Your task to perform on an android device: delete browsing data in the chrome app Image 0: 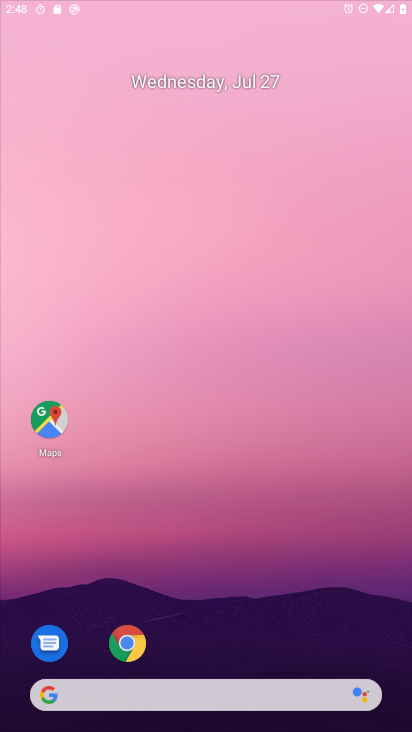
Step 0: press home button
Your task to perform on an android device: delete browsing data in the chrome app Image 1: 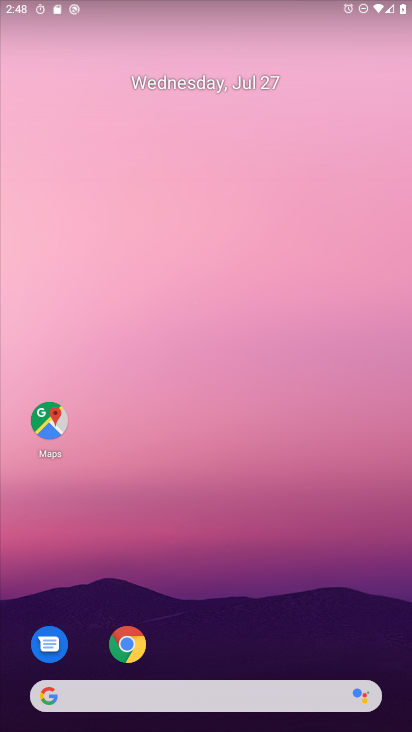
Step 1: click (220, 95)
Your task to perform on an android device: delete browsing data in the chrome app Image 2: 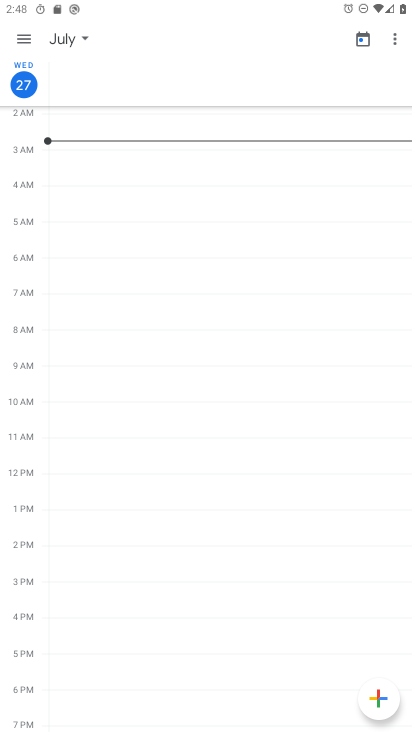
Step 2: press home button
Your task to perform on an android device: delete browsing data in the chrome app Image 3: 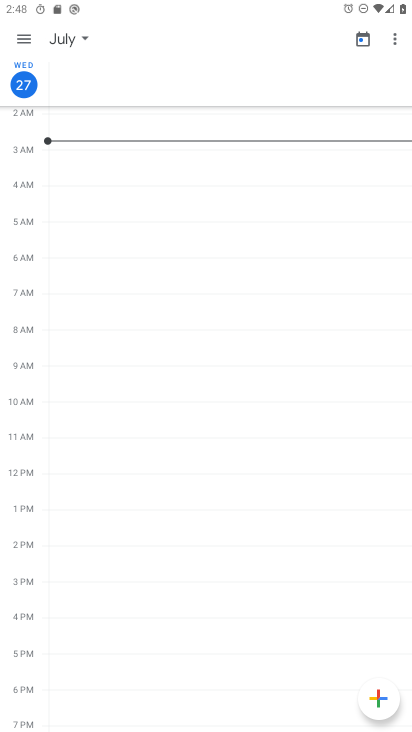
Step 3: press home button
Your task to perform on an android device: delete browsing data in the chrome app Image 4: 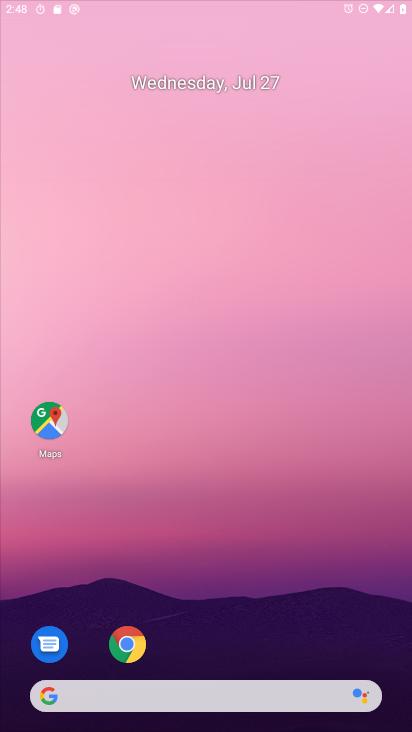
Step 4: drag from (194, 476) to (173, 77)
Your task to perform on an android device: delete browsing data in the chrome app Image 5: 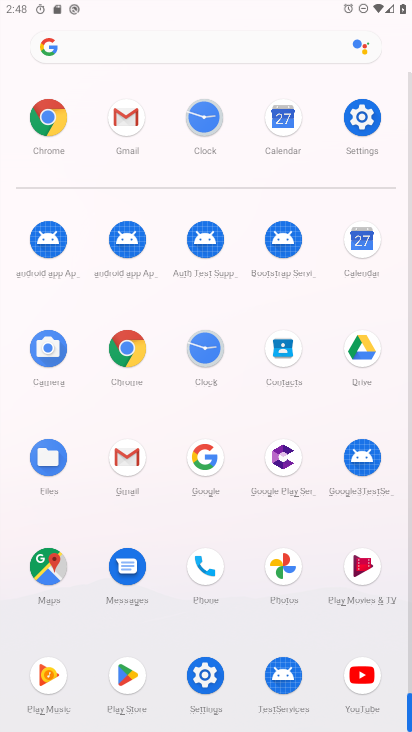
Step 5: click (114, 344)
Your task to perform on an android device: delete browsing data in the chrome app Image 6: 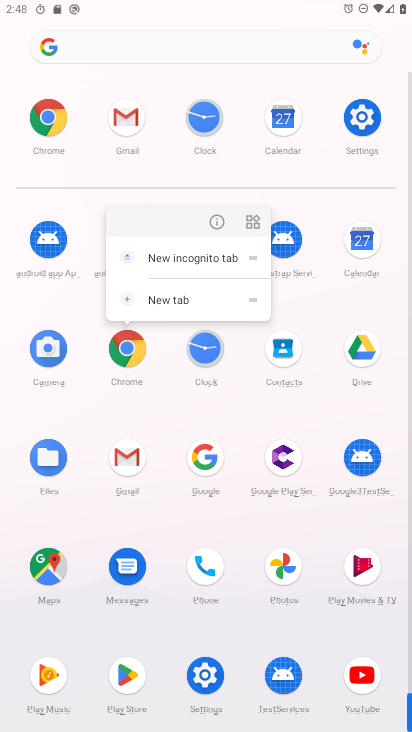
Step 6: click (214, 220)
Your task to perform on an android device: delete browsing data in the chrome app Image 7: 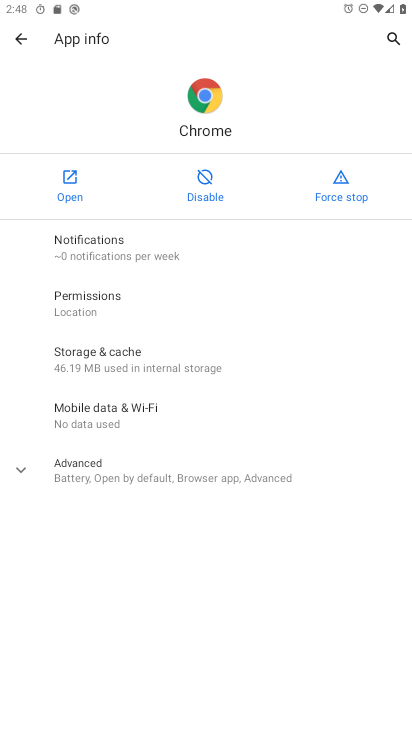
Step 7: click (77, 204)
Your task to perform on an android device: delete browsing data in the chrome app Image 8: 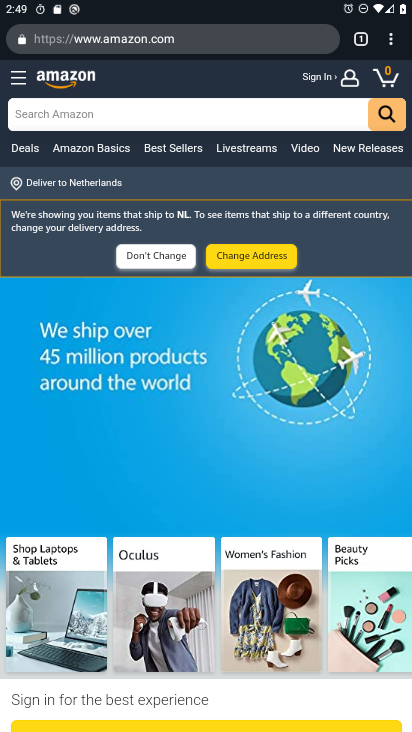
Step 8: drag from (393, 38) to (264, 268)
Your task to perform on an android device: delete browsing data in the chrome app Image 9: 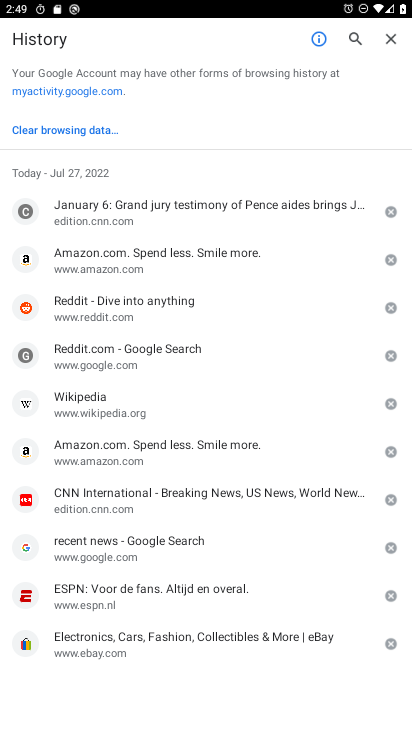
Step 9: click (37, 130)
Your task to perform on an android device: delete browsing data in the chrome app Image 10: 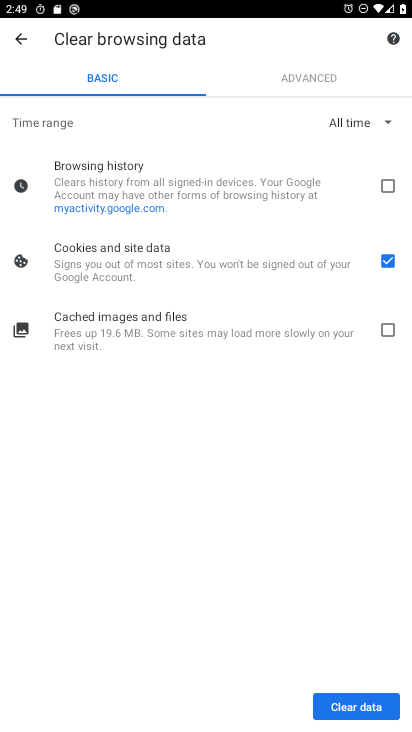
Step 10: drag from (230, 575) to (181, 331)
Your task to perform on an android device: delete browsing data in the chrome app Image 11: 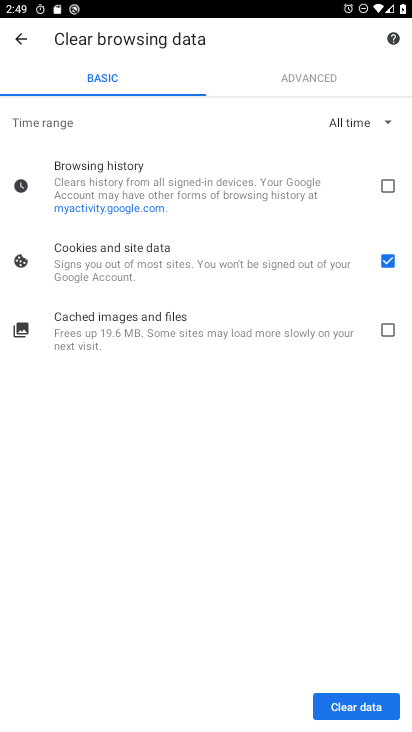
Step 11: drag from (196, 541) to (169, 309)
Your task to perform on an android device: delete browsing data in the chrome app Image 12: 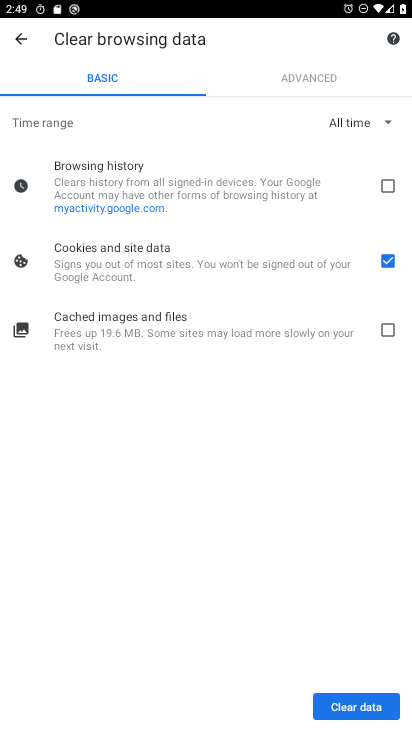
Step 12: drag from (124, 546) to (171, 322)
Your task to perform on an android device: delete browsing data in the chrome app Image 13: 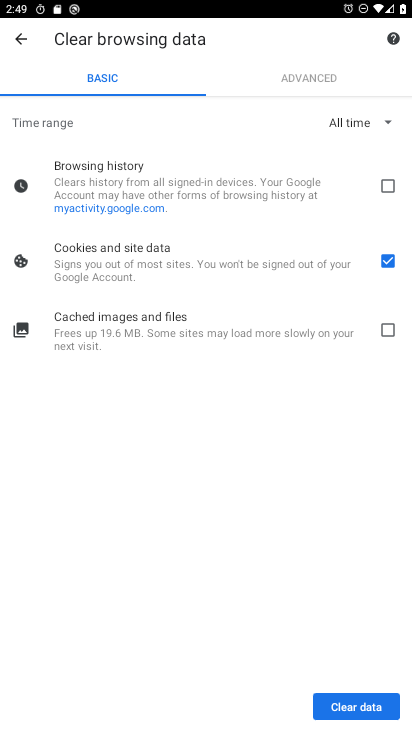
Step 13: drag from (179, 257) to (287, 691)
Your task to perform on an android device: delete browsing data in the chrome app Image 14: 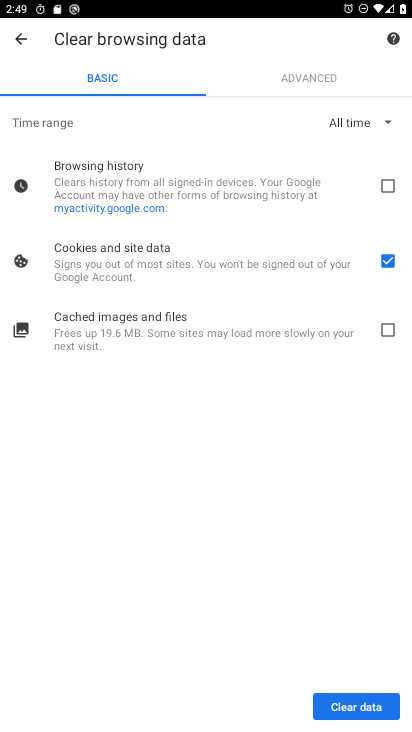
Step 14: click (382, 199)
Your task to perform on an android device: delete browsing data in the chrome app Image 15: 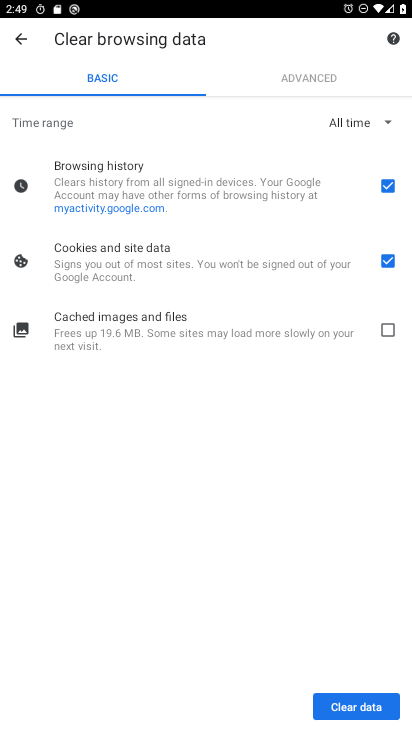
Step 15: click (377, 327)
Your task to perform on an android device: delete browsing data in the chrome app Image 16: 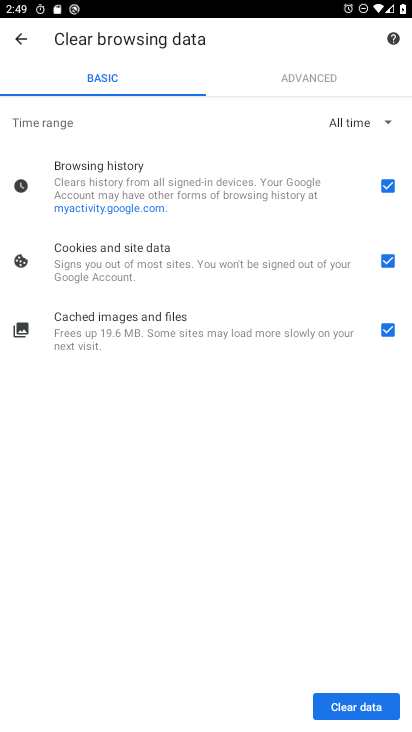
Step 16: click (368, 702)
Your task to perform on an android device: delete browsing data in the chrome app Image 17: 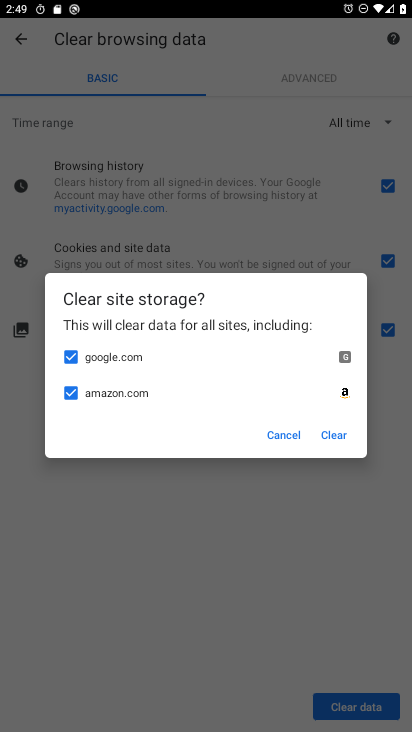
Step 17: click (327, 431)
Your task to perform on an android device: delete browsing data in the chrome app Image 18: 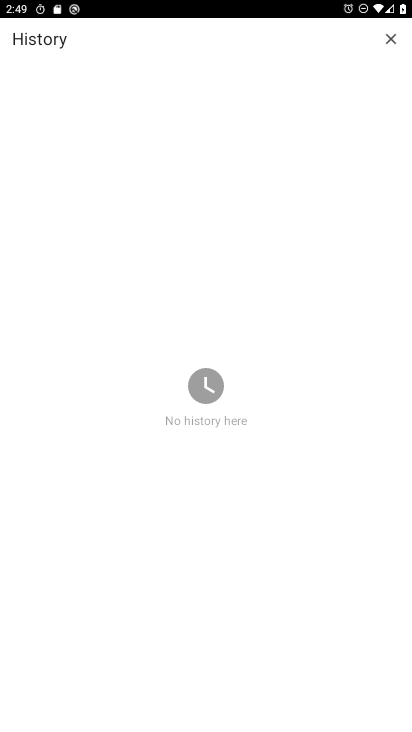
Step 18: task complete